Your task to perform on an android device: Go to Android settings Image 0: 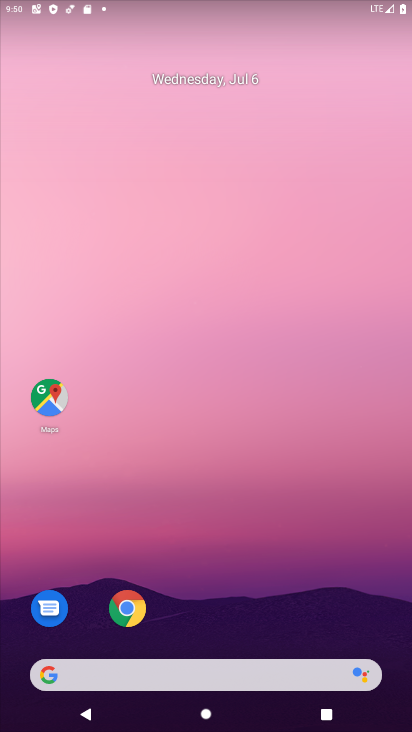
Step 0: drag from (280, 500) to (248, 61)
Your task to perform on an android device: Go to Android settings Image 1: 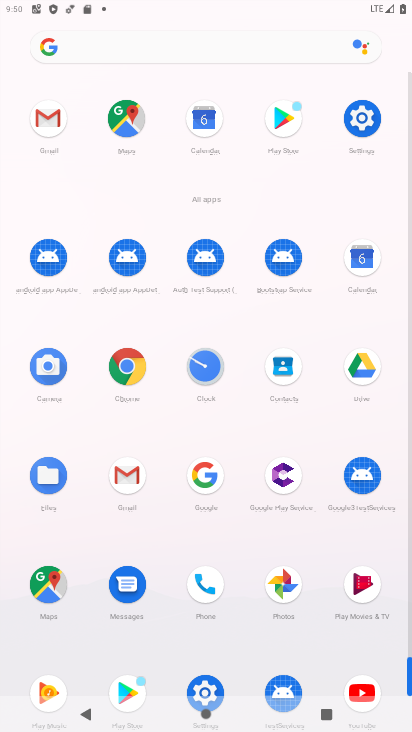
Step 1: click (362, 113)
Your task to perform on an android device: Go to Android settings Image 2: 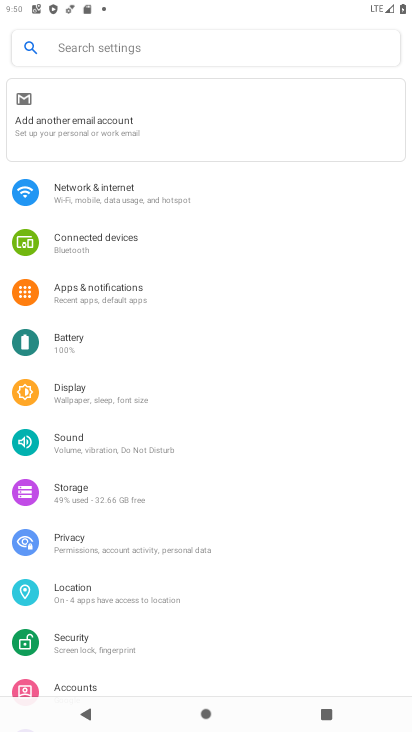
Step 2: task complete